Your task to perform on an android device: find which apps use the phone's location Image 0: 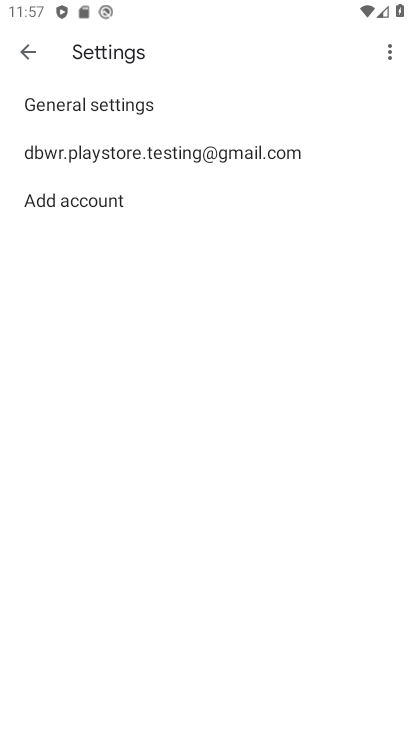
Step 0: press home button
Your task to perform on an android device: find which apps use the phone's location Image 1: 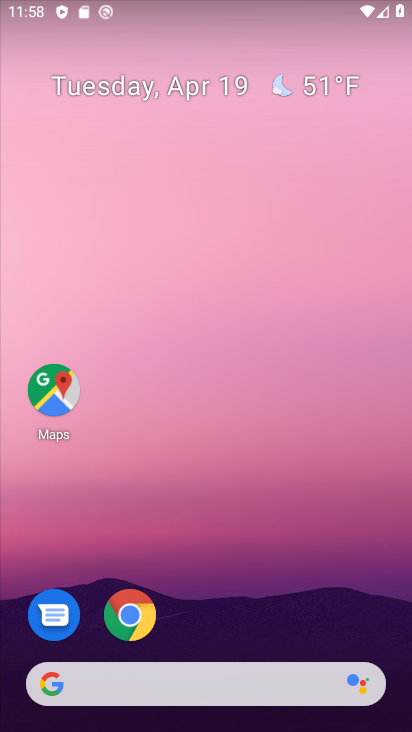
Step 1: drag from (344, 611) to (338, 12)
Your task to perform on an android device: find which apps use the phone's location Image 2: 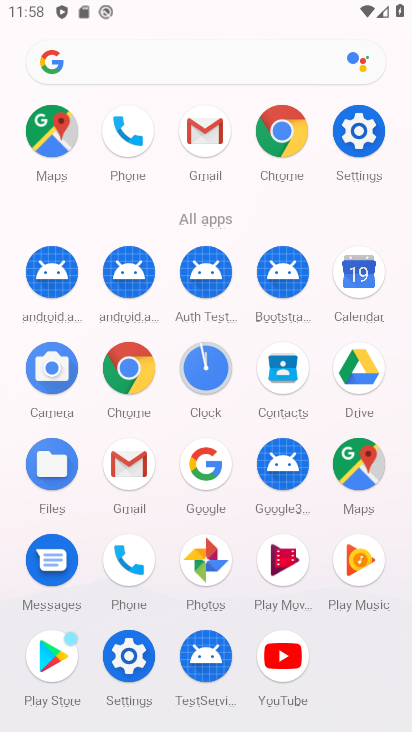
Step 2: click (358, 132)
Your task to perform on an android device: find which apps use the phone's location Image 3: 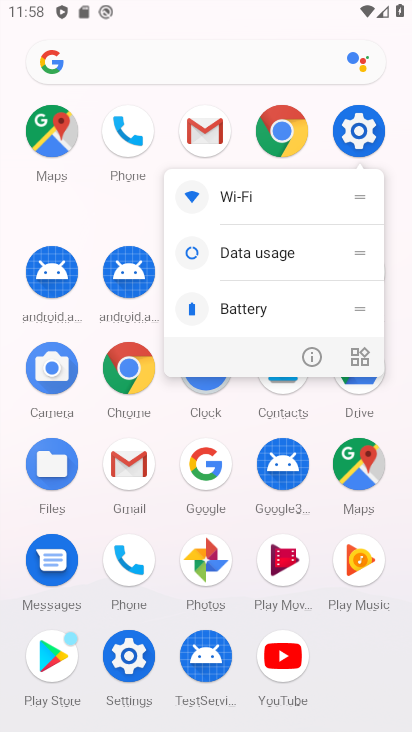
Step 3: click (361, 132)
Your task to perform on an android device: find which apps use the phone's location Image 4: 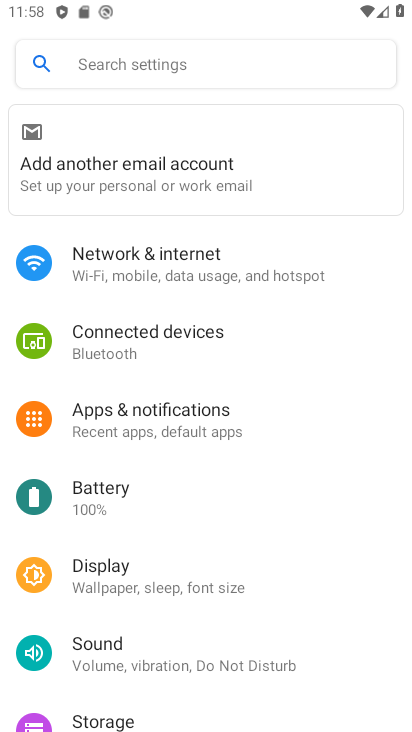
Step 4: drag from (357, 619) to (333, 319)
Your task to perform on an android device: find which apps use the phone's location Image 5: 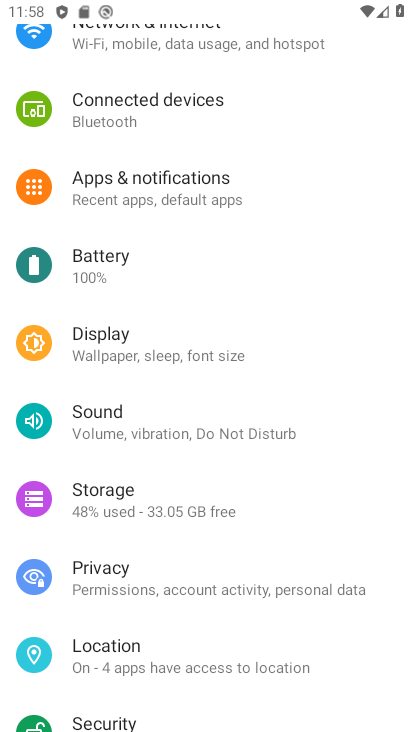
Step 5: click (77, 655)
Your task to perform on an android device: find which apps use the phone's location Image 6: 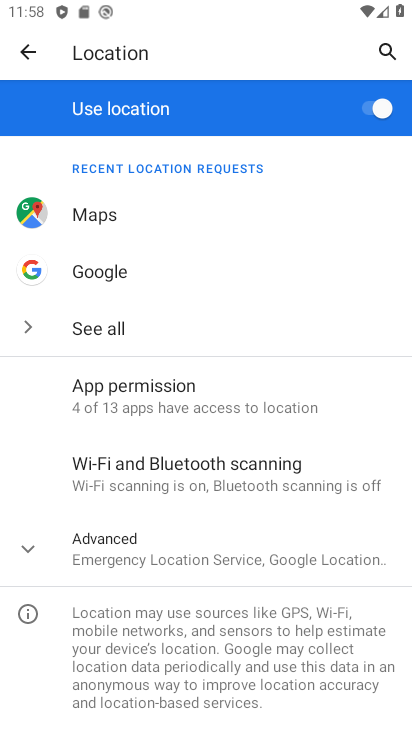
Step 6: click (116, 395)
Your task to perform on an android device: find which apps use the phone's location Image 7: 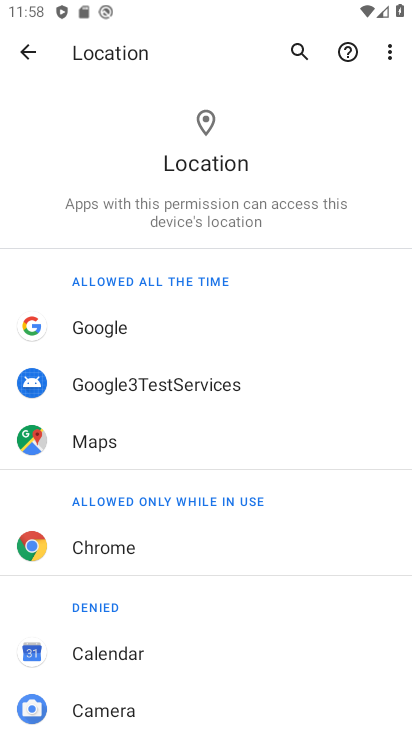
Step 7: task complete